Your task to perform on an android device: Open my contact list Image 0: 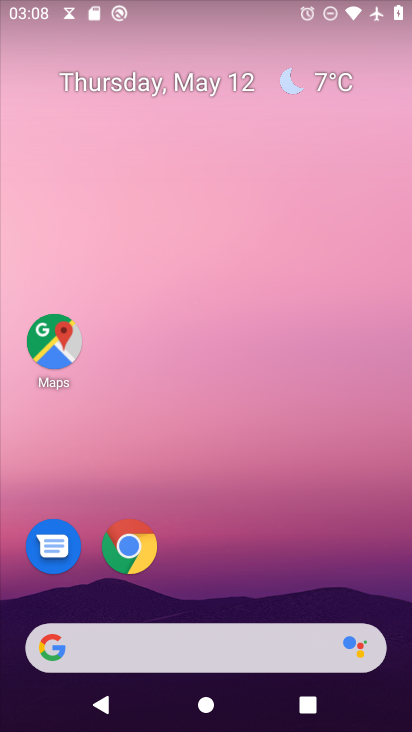
Step 0: drag from (184, 655) to (317, 222)
Your task to perform on an android device: Open my contact list Image 1: 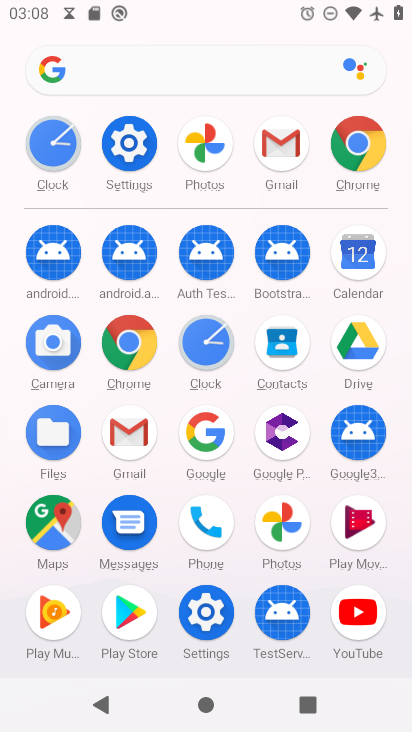
Step 1: click (282, 348)
Your task to perform on an android device: Open my contact list Image 2: 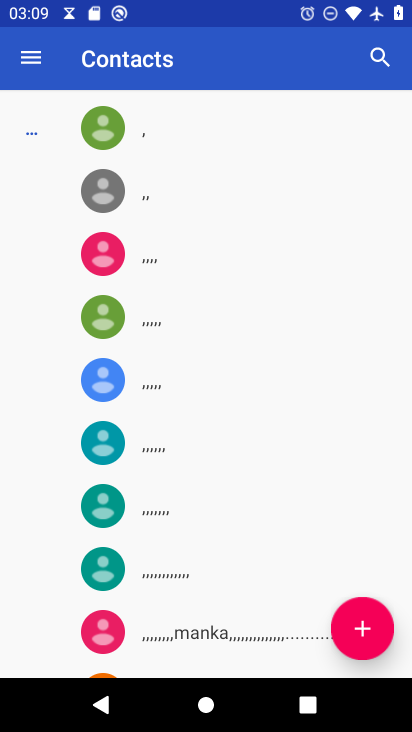
Step 2: task complete